Your task to perform on an android device: turn off priority inbox in the gmail app Image 0: 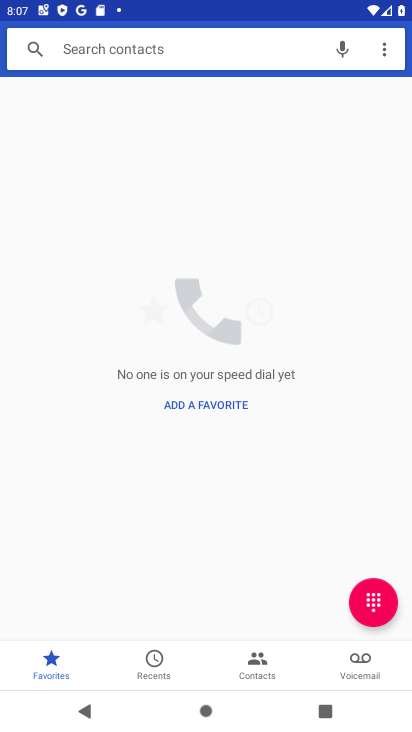
Step 0: press home button
Your task to perform on an android device: turn off priority inbox in the gmail app Image 1: 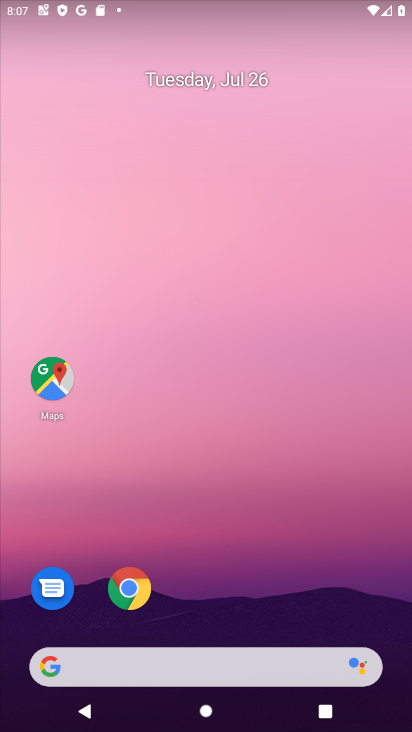
Step 1: drag from (242, 590) to (211, 2)
Your task to perform on an android device: turn off priority inbox in the gmail app Image 2: 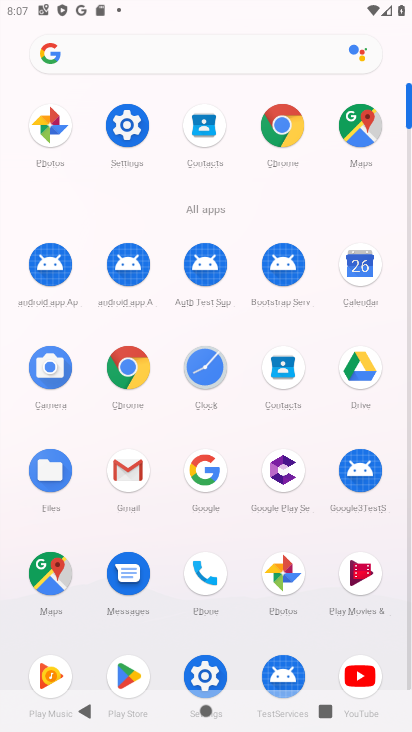
Step 2: click (119, 467)
Your task to perform on an android device: turn off priority inbox in the gmail app Image 3: 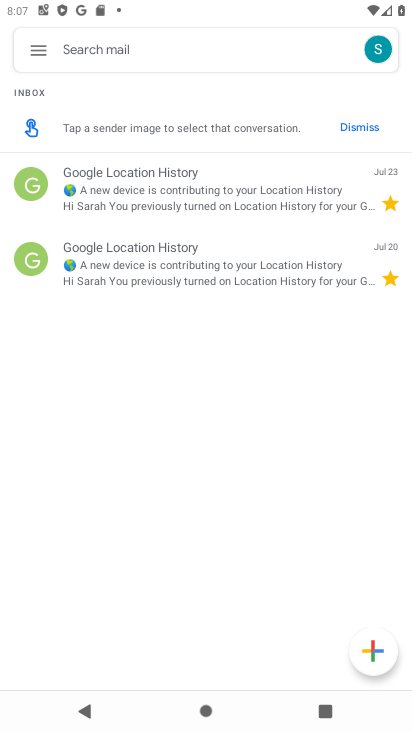
Step 3: click (40, 45)
Your task to perform on an android device: turn off priority inbox in the gmail app Image 4: 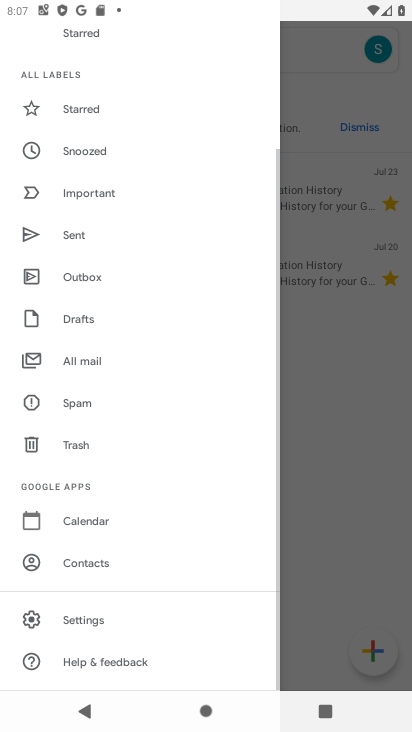
Step 4: click (65, 618)
Your task to perform on an android device: turn off priority inbox in the gmail app Image 5: 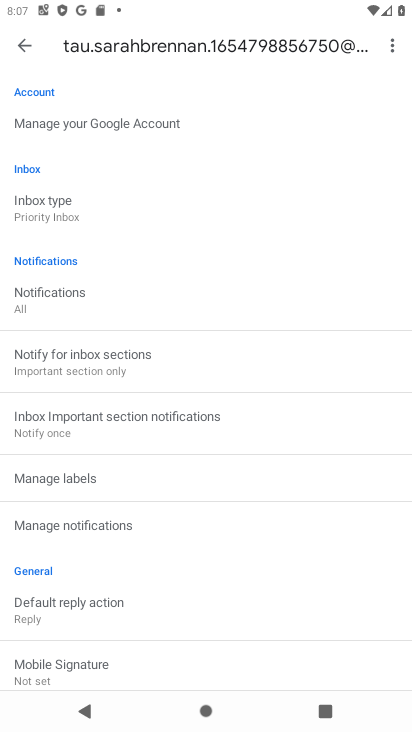
Step 5: click (47, 211)
Your task to perform on an android device: turn off priority inbox in the gmail app Image 6: 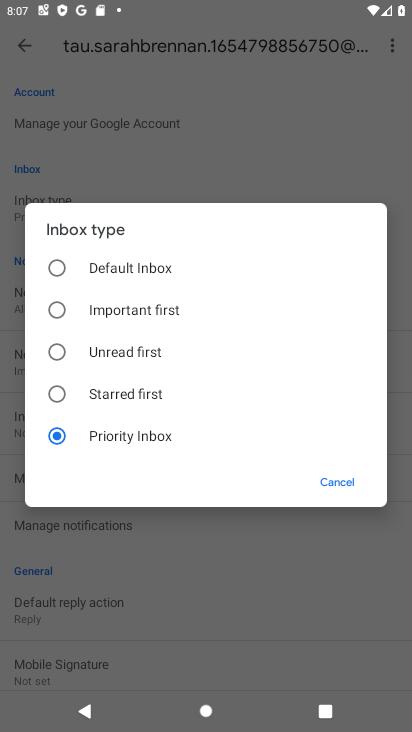
Step 6: click (111, 270)
Your task to perform on an android device: turn off priority inbox in the gmail app Image 7: 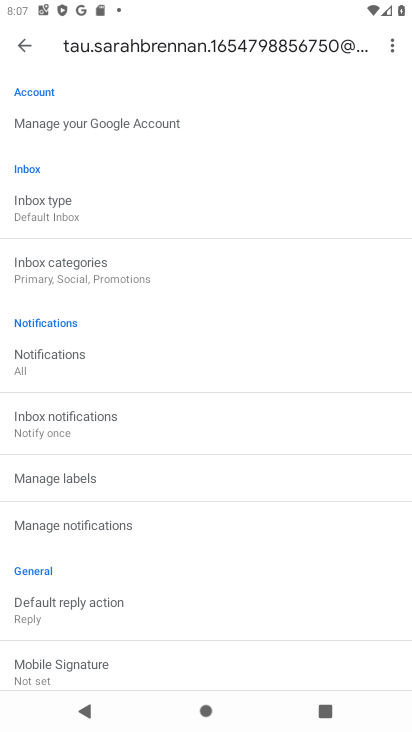
Step 7: task complete